Your task to perform on an android device: Open Youtube and go to the subscriptions tab Image 0: 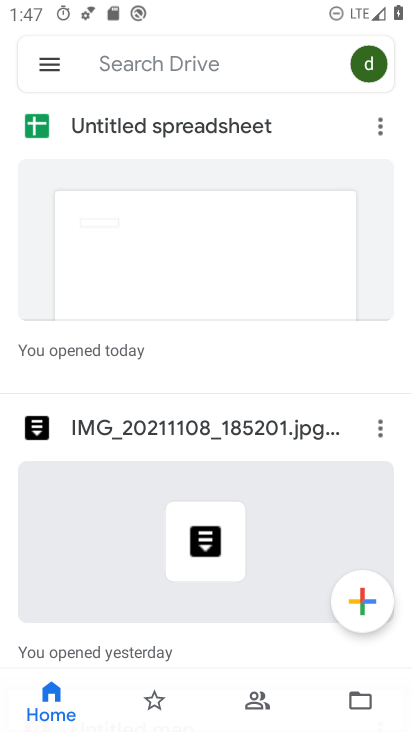
Step 0: press home button
Your task to perform on an android device: Open Youtube and go to the subscriptions tab Image 1: 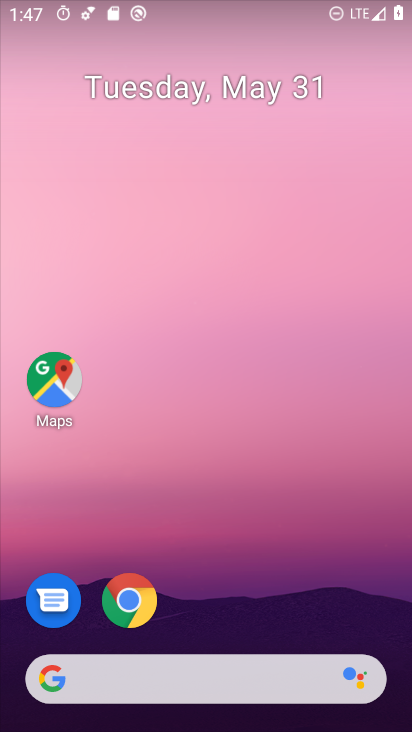
Step 1: drag from (246, 710) to (236, 454)
Your task to perform on an android device: Open Youtube and go to the subscriptions tab Image 2: 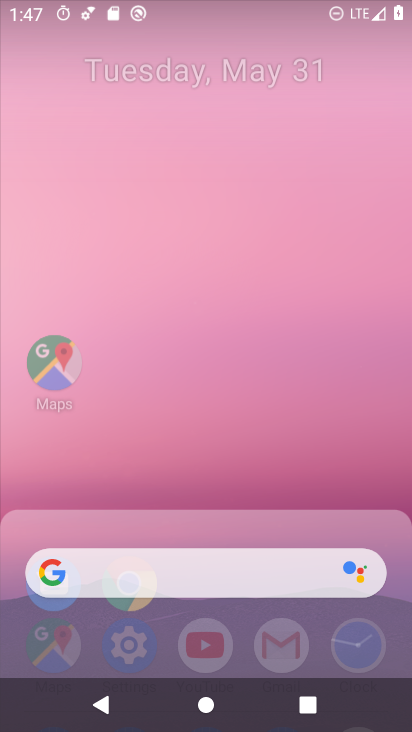
Step 2: drag from (243, 316) to (246, 228)
Your task to perform on an android device: Open Youtube and go to the subscriptions tab Image 3: 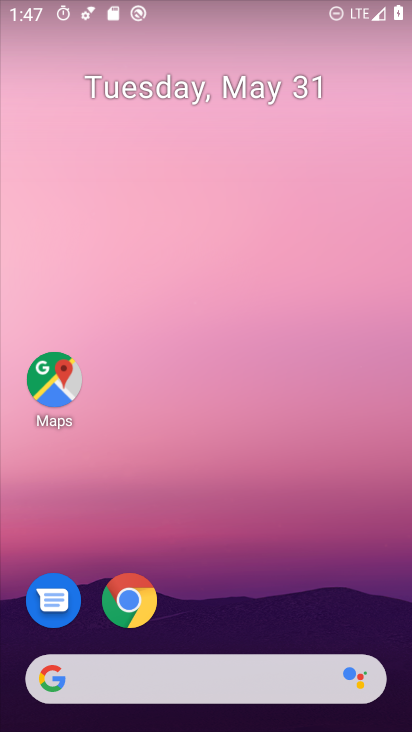
Step 3: drag from (216, 720) to (213, 630)
Your task to perform on an android device: Open Youtube and go to the subscriptions tab Image 4: 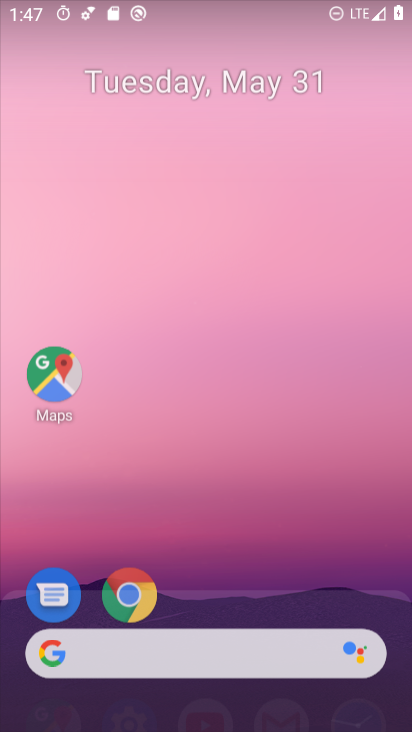
Step 4: drag from (213, 539) to (213, 3)
Your task to perform on an android device: Open Youtube and go to the subscriptions tab Image 5: 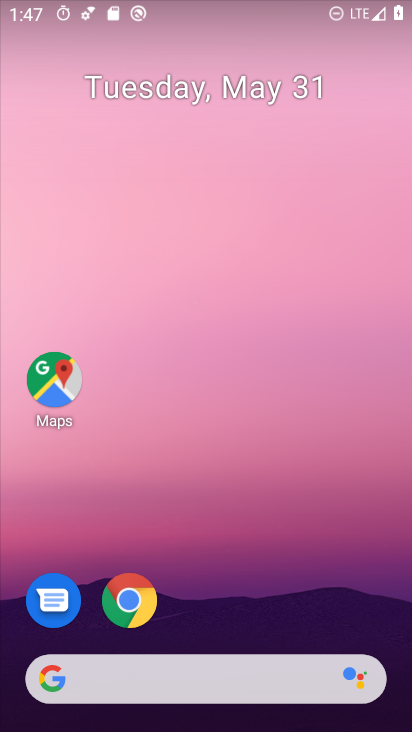
Step 5: drag from (258, 700) to (257, 84)
Your task to perform on an android device: Open Youtube and go to the subscriptions tab Image 6: 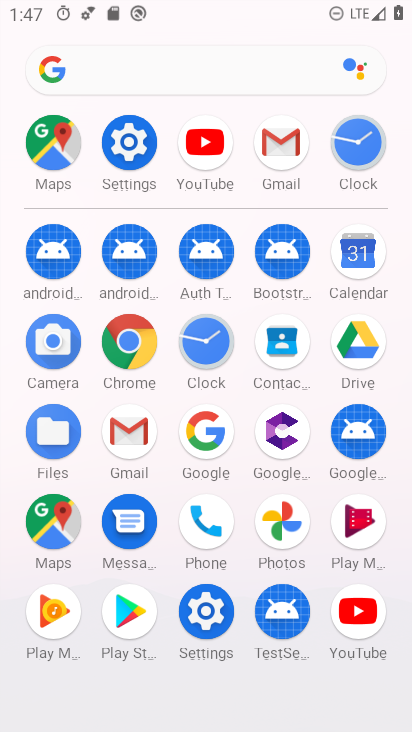
Step 6: click (358, 617)
Your task to perform on an android device: Open Youtube and go to the subscriptions tab Image 7: 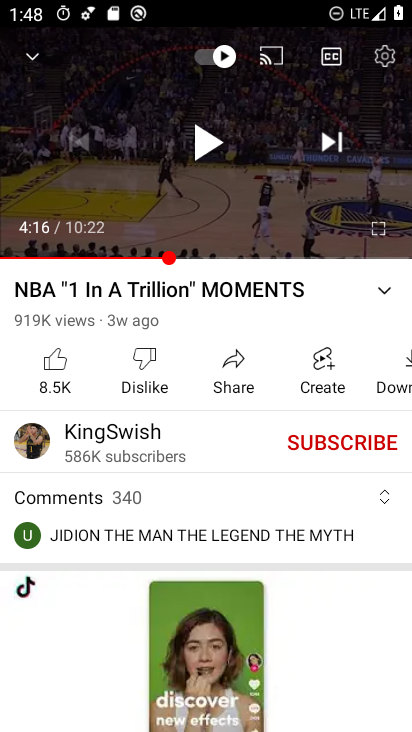
Step 7: click (34, 57)
Your task to perform on an android device: Open Youtube and go to the subscriptions tab Image 8: 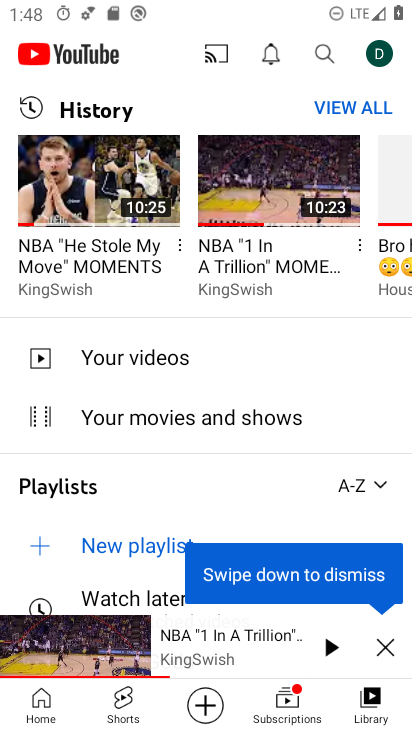
Step 8: click (286, 695)
Your task to perform on an android device: Open Youtube and go to the subscriptions tab Image 9: 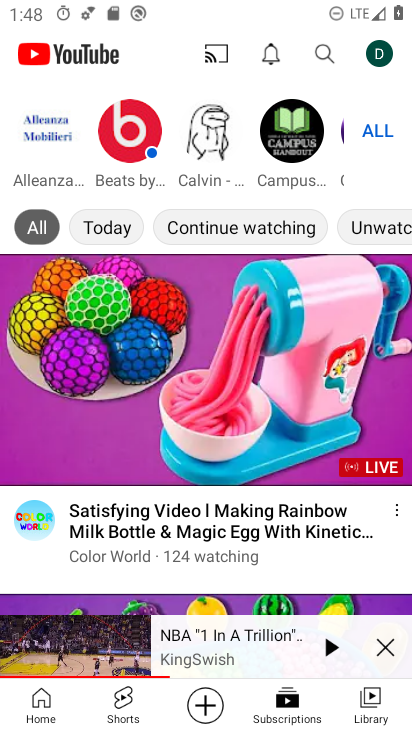
Step 9: task complete